Your task to perform on an android device: What is the recent news? Image 0: 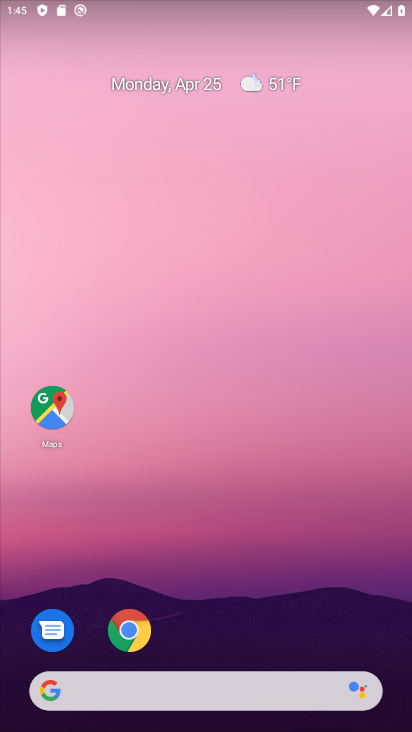
Step 0: drag from (311, 618) to (215, 102)
Your task to perform on an android device: What is the recent news? Image 1: 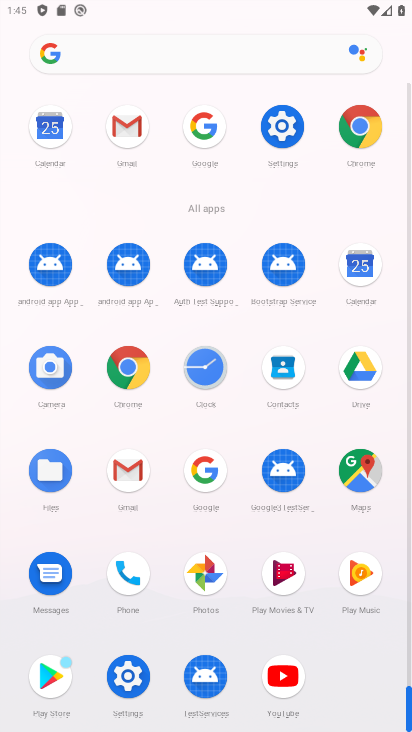
Step 1: click (374, 134)
Your task to perform on an android device: What is the recent news? Image 2: 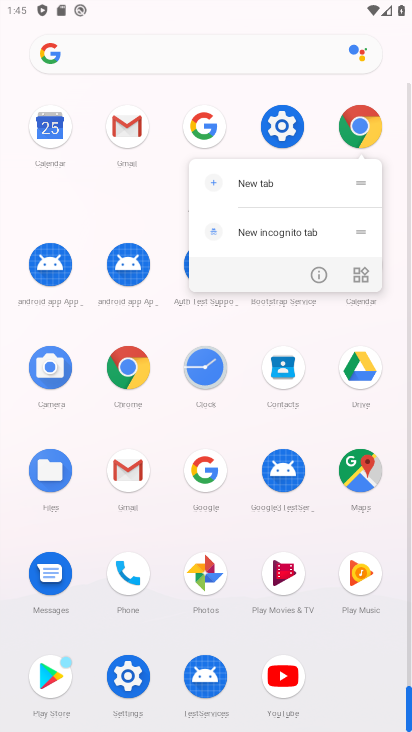
Step 2: click (372, 113)
Your task to perform on an android device: What is the recent news? Image 3: 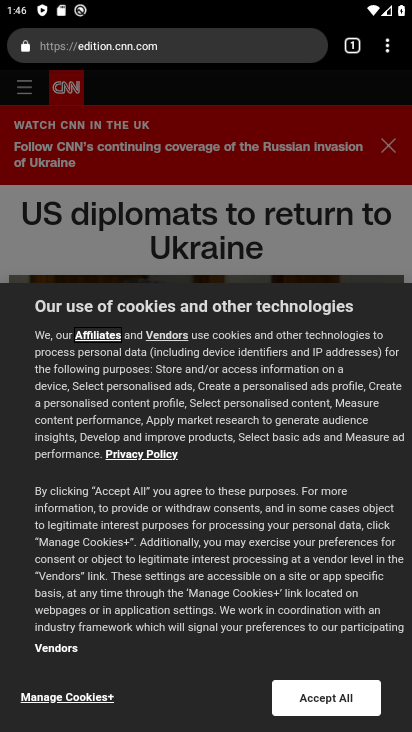
Step 3: task complete